Your task to perform on an android device: turn on priority inbox in the gmail app Image 0: 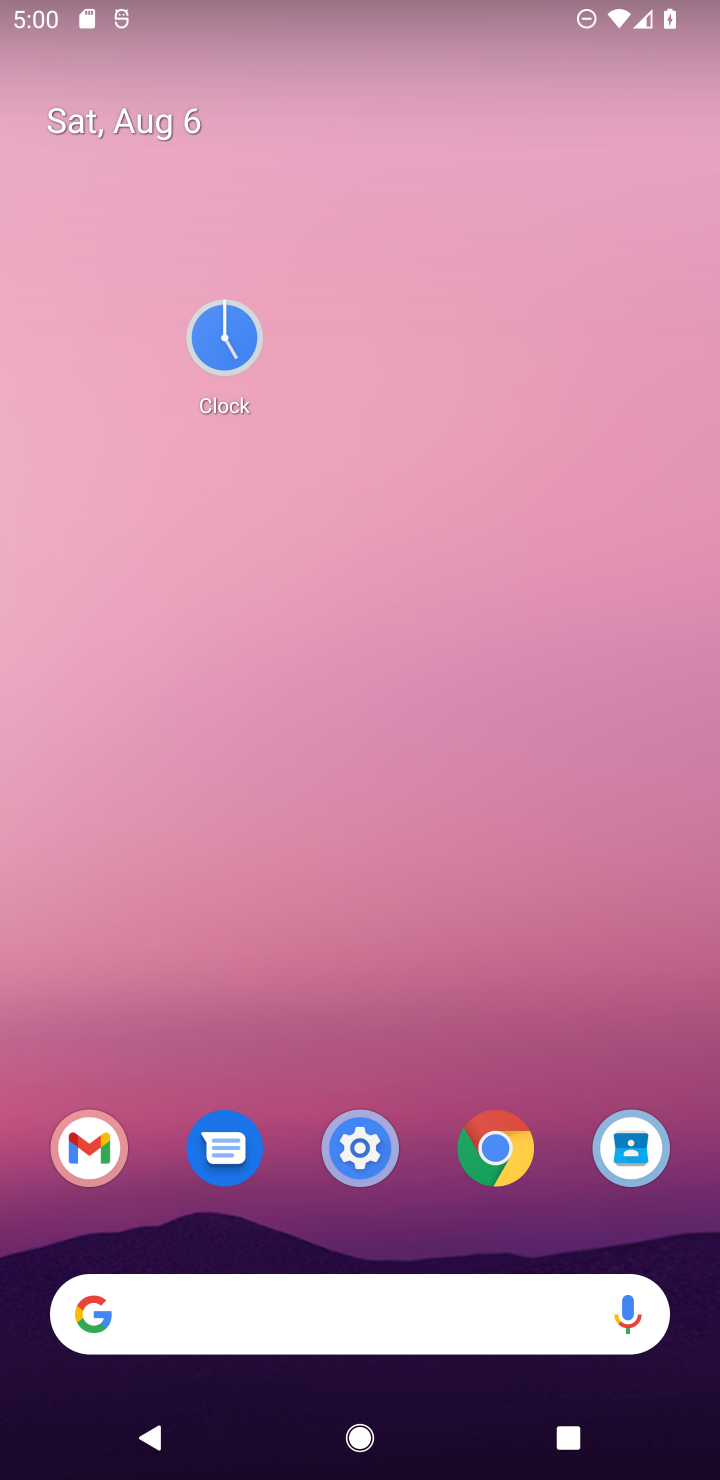
Step 0: drag from (390, 1215) to (621, 143)
Your task to perform on an android device: turn on priority inbox in the gmail app Image 1: 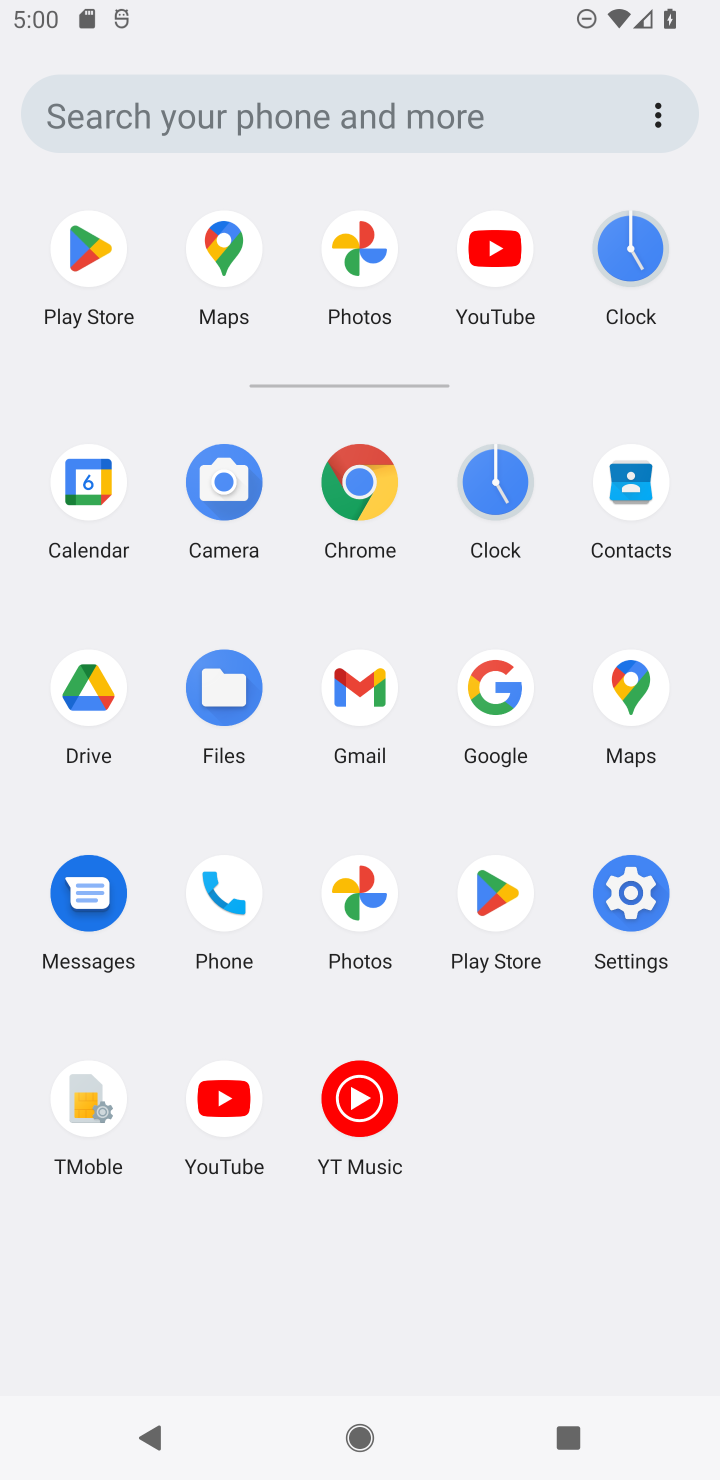
Step 1: click (346, 682)
Your task to perform on an android device: turn on priority inbox in the gmail app Image 2: 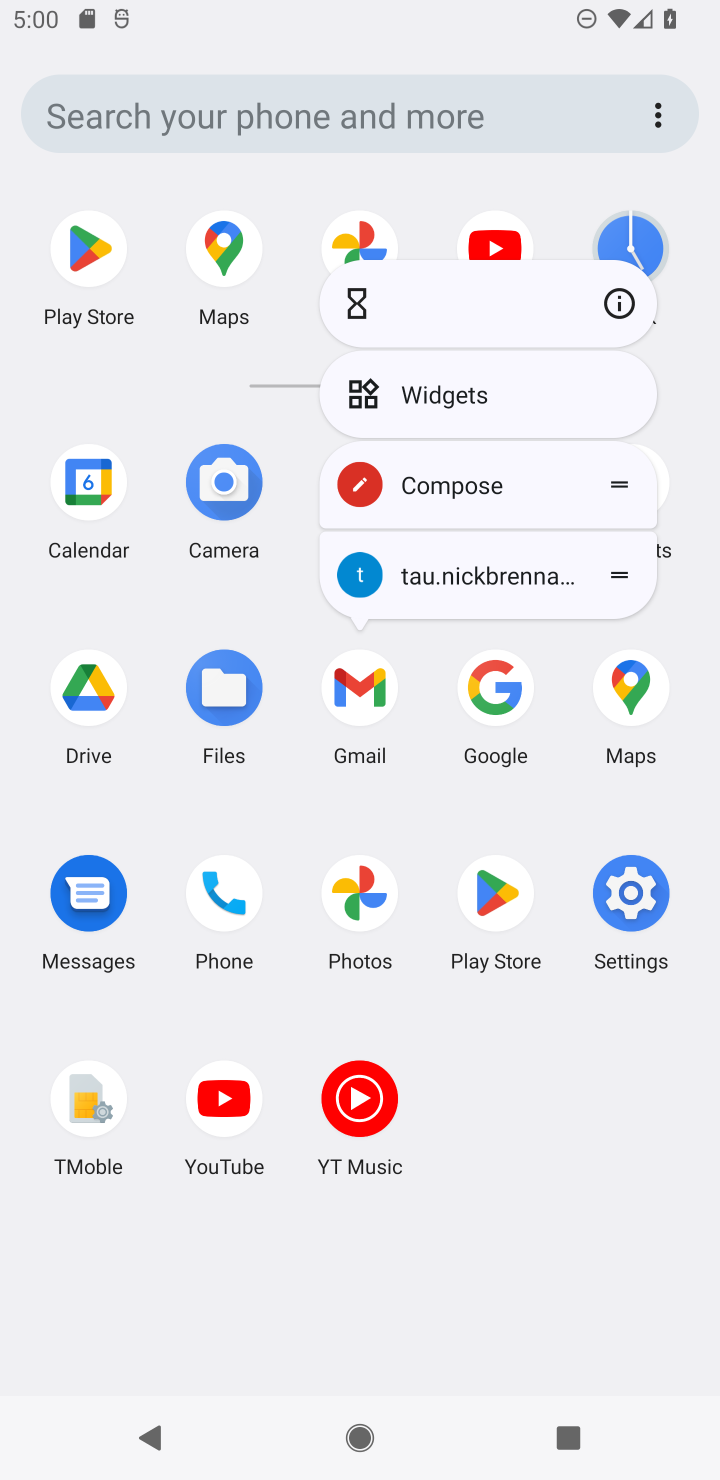
Step 2: click (624, 291)
Your task to perform on an android device: turn on priority inbox in the gmail app Image 3: 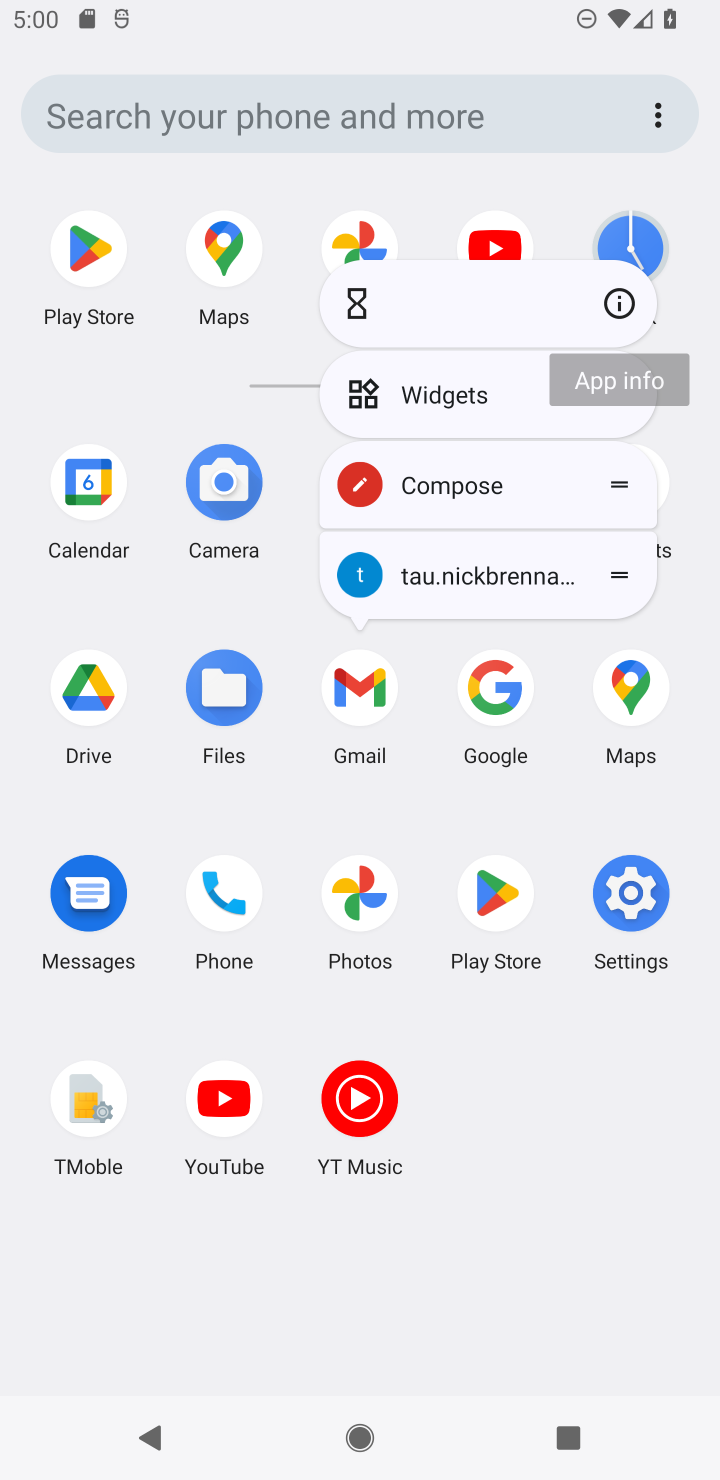
Step 3: click (611, 289)
Your task to perform on an android device: turn on priority inbox in the gmail app Image 4: 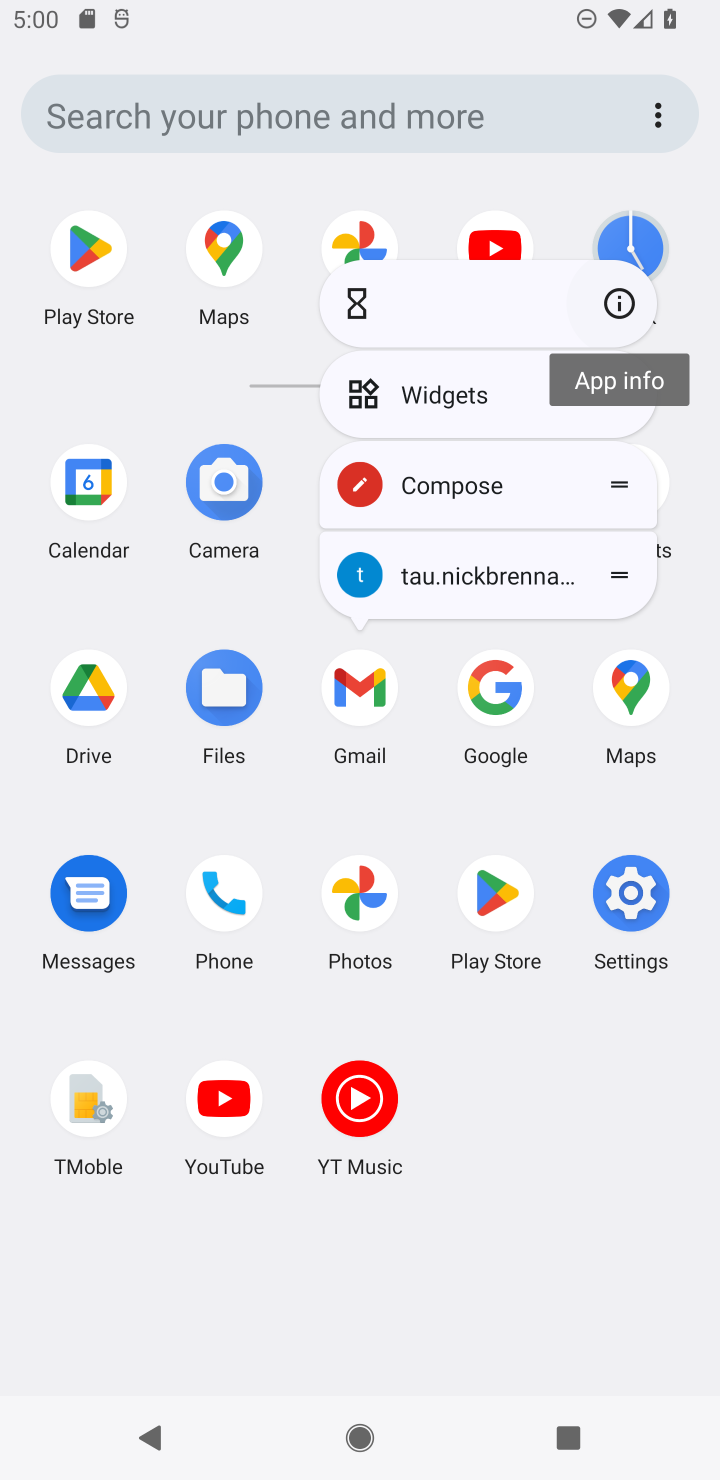
Step 4: click (611, 289)
Your task to perform on an android device: turn on priority inbox in the gmail app Image 5: 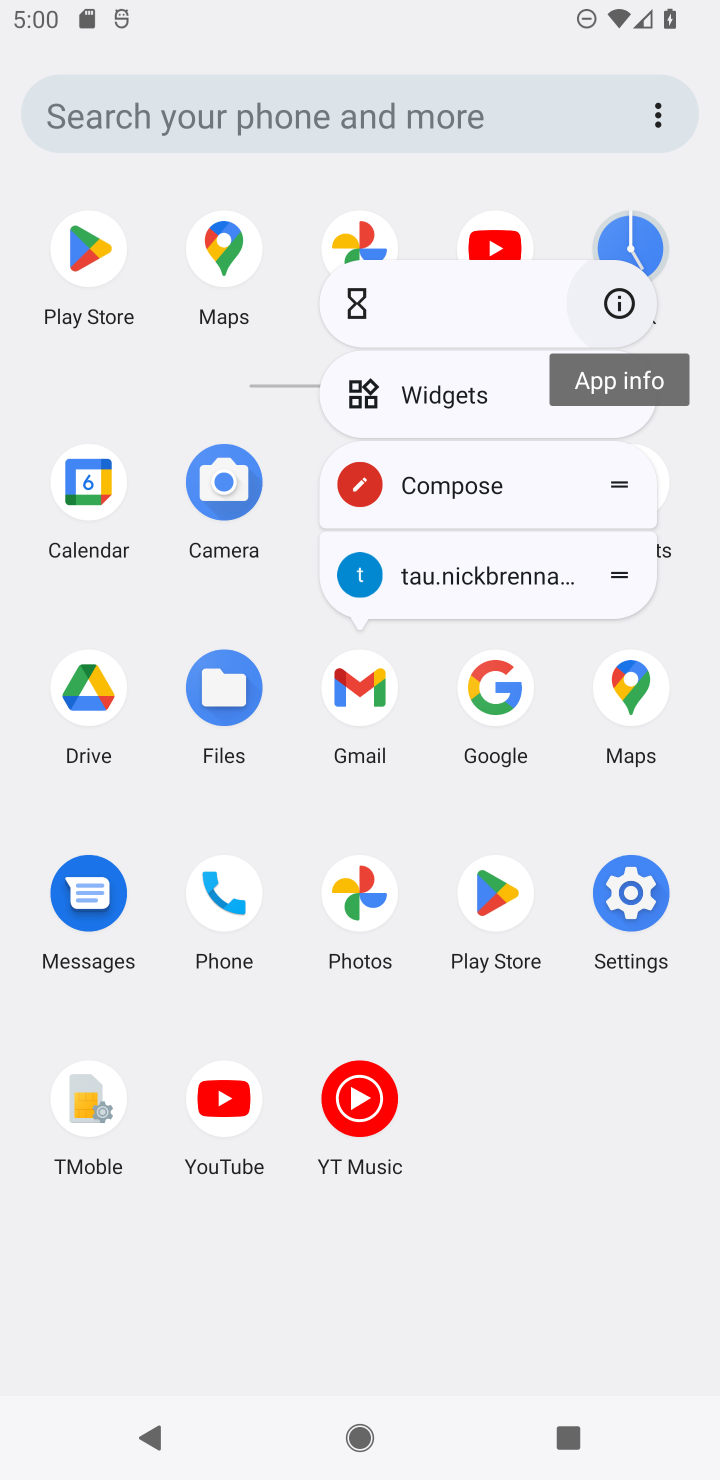
Step 5: click (611, 295)
Your task to perform on an android device: turn on priority inbox in the gmail app Image 6: 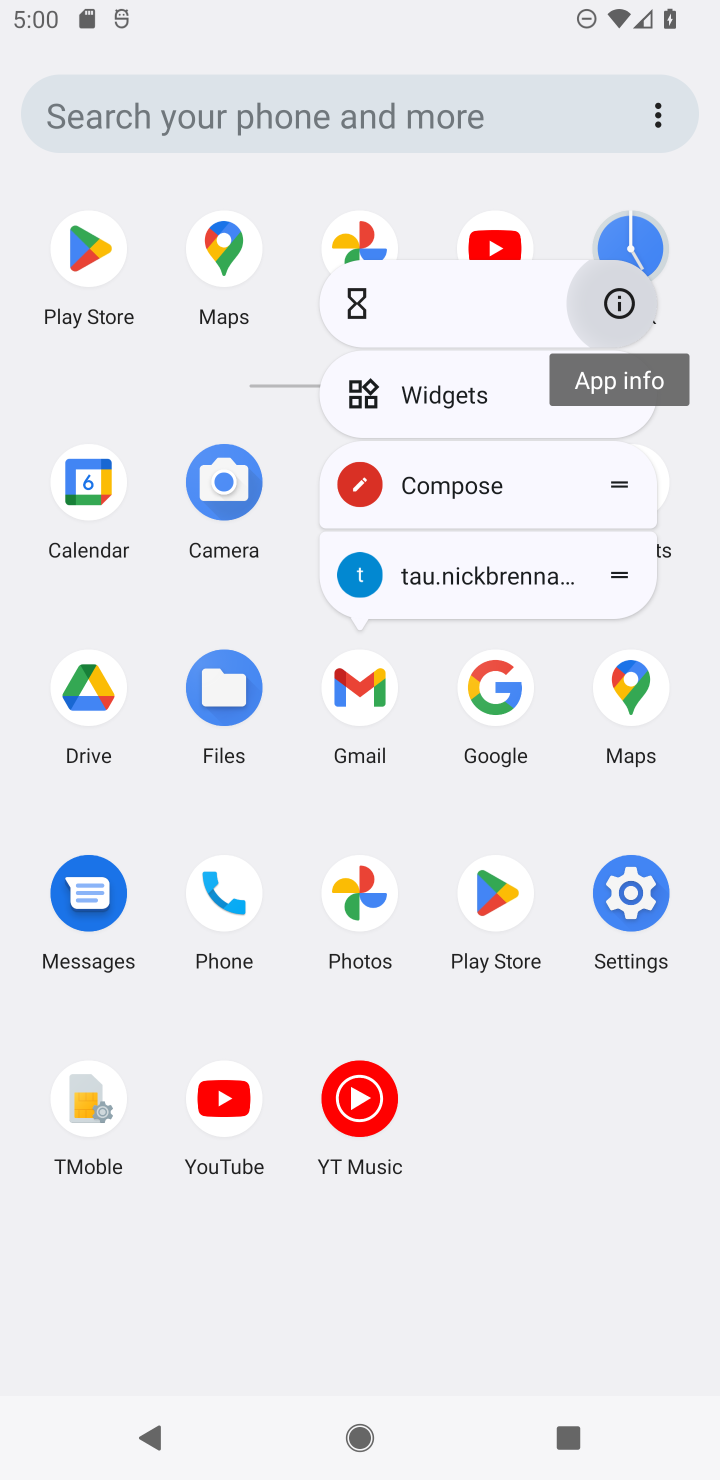
Step 6: click (371, 672)
Your task to perform on an android device: turn on priority inbox in the gmail app Image 7: 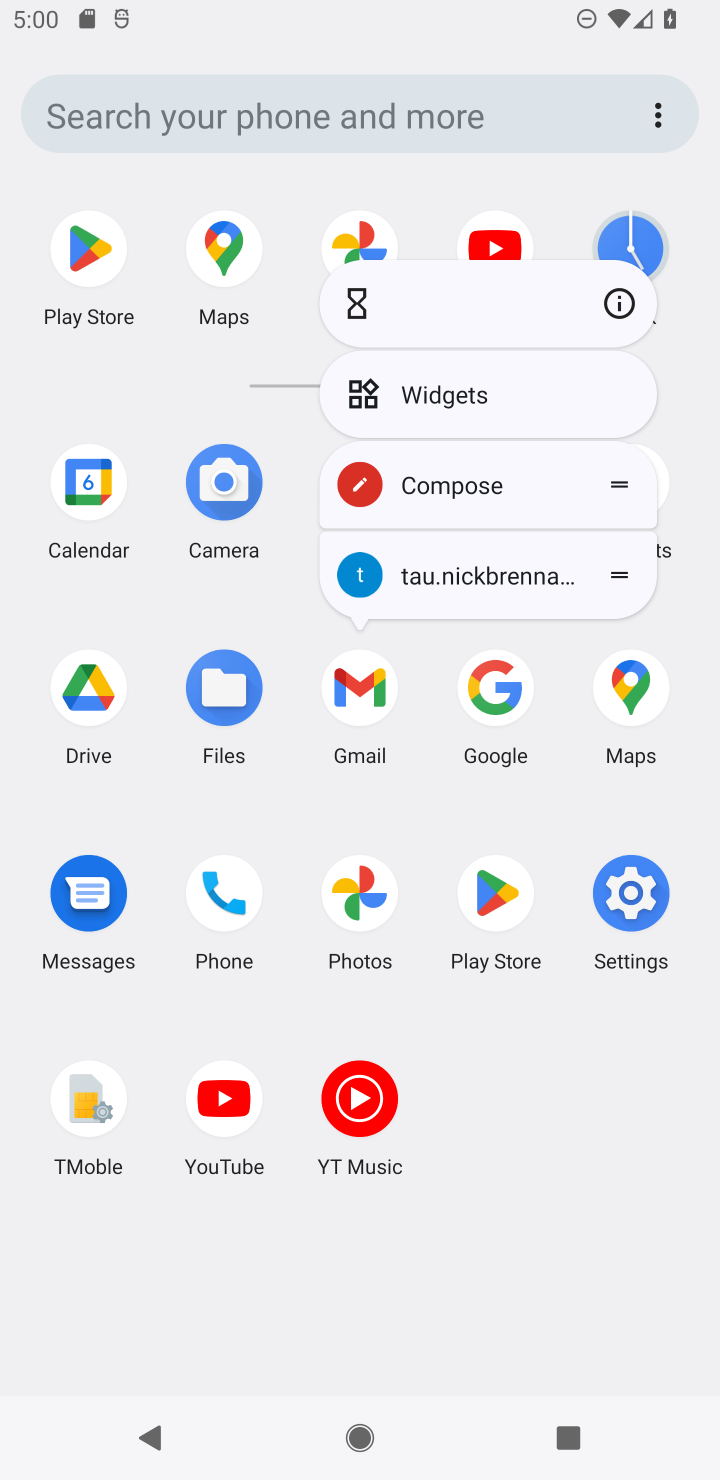
Step 7: click (350, 664)
Your task to perform on an android device: turn on priority inbox in the gmail app Image 8: 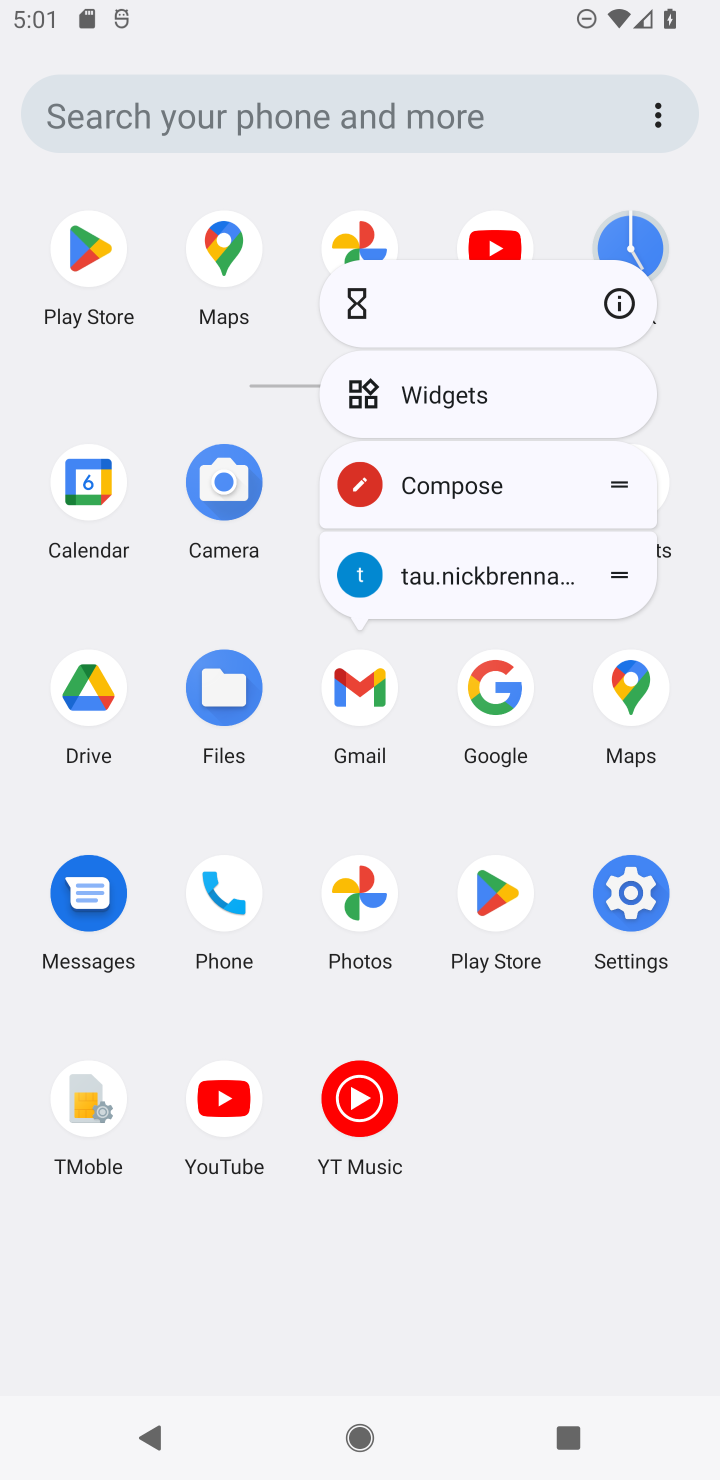
Step 8: click (350, 664)
Your task to perform on an android device: turn on priority inbox in the gmail app Image 9: 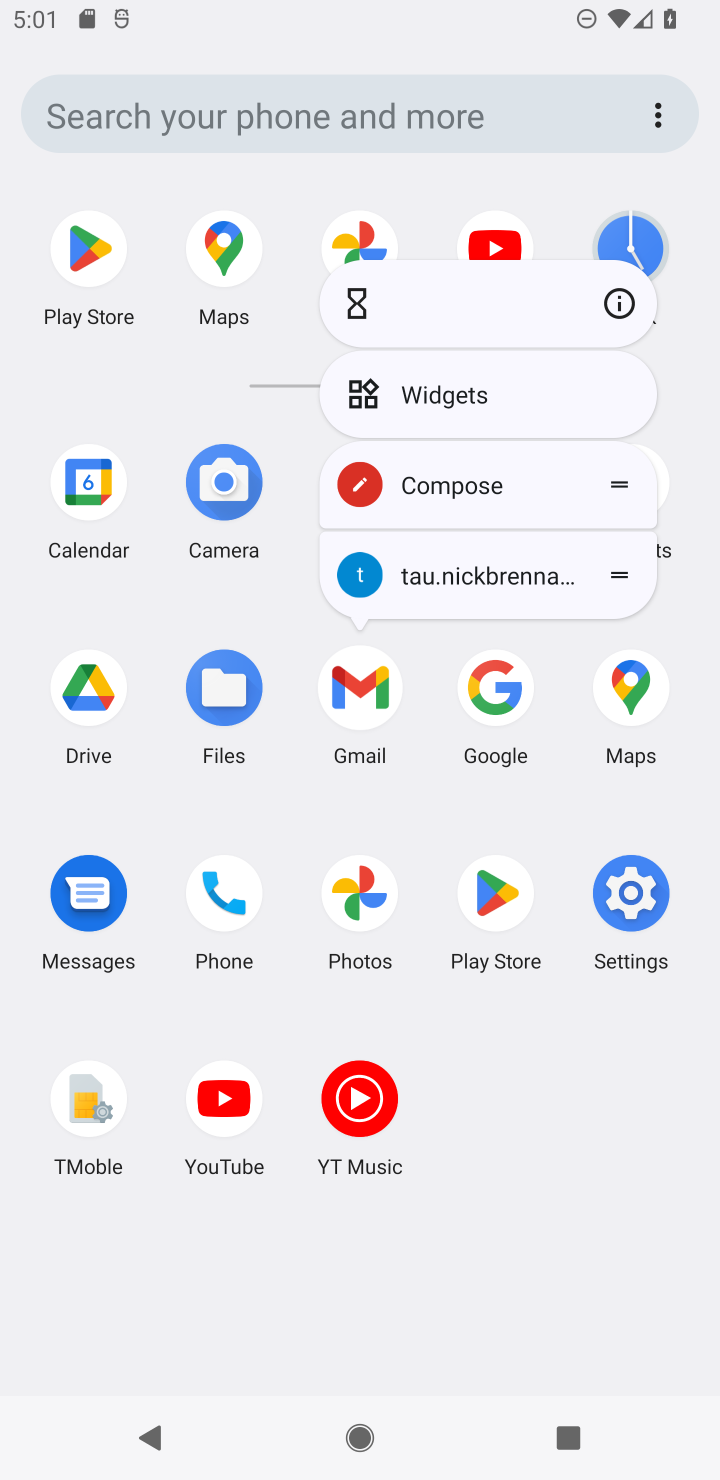
Step 9: click (348, 664)
Your task to perform on an android device: turn on priority inbox in the gmail app Image 10: 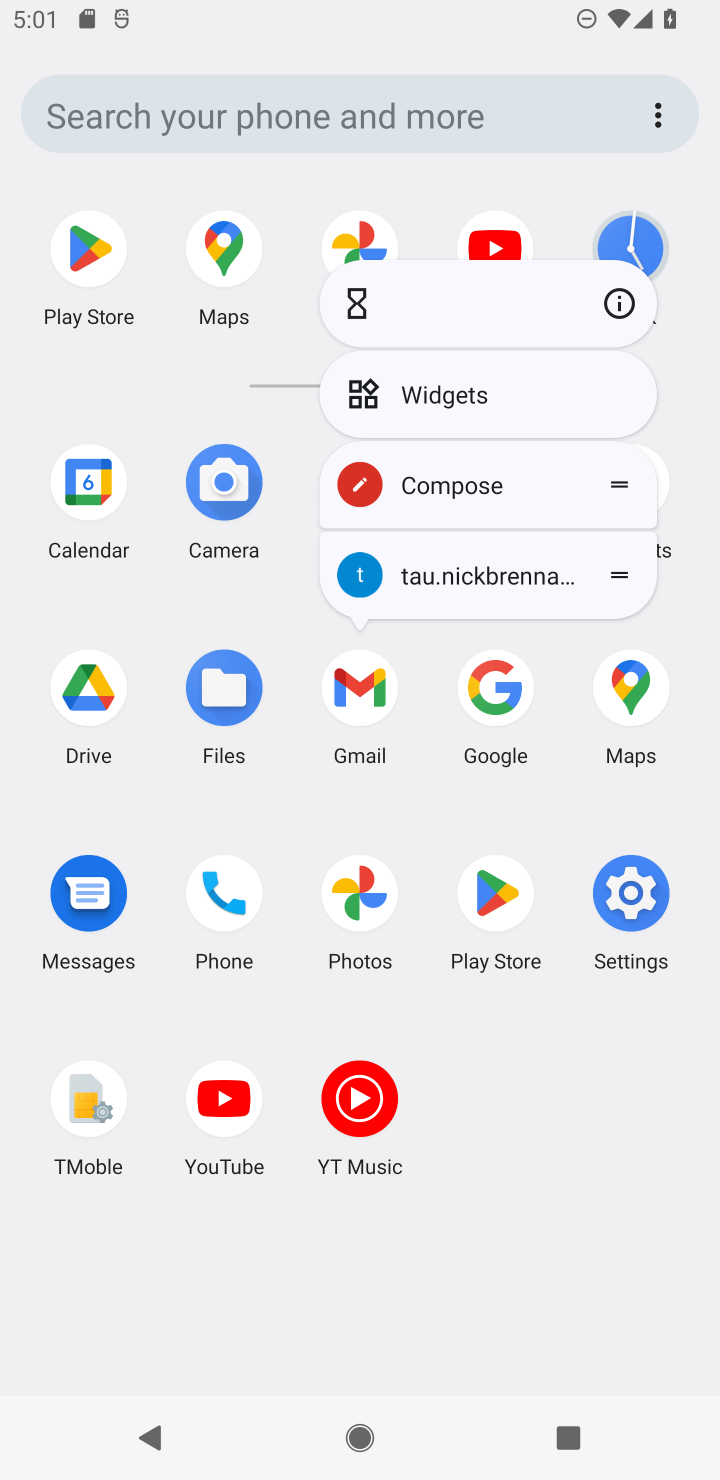
Step 10: click (614, 283)
Your task to perform on an android device: turn on priority inbox in the gmail app Image 11: 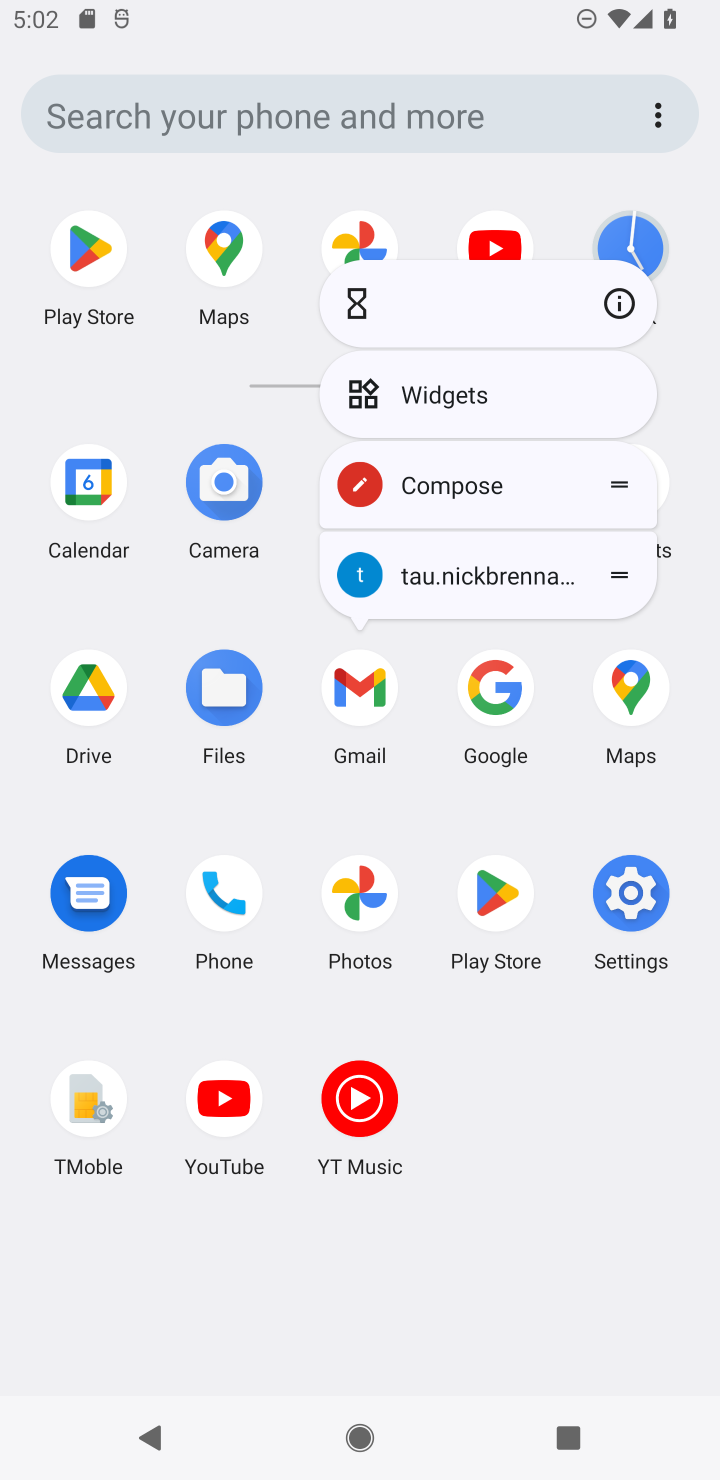
Step 11: click (360, 659)
Your task to perform on an android device: turn on priority inbox in the gmail app Image 12: 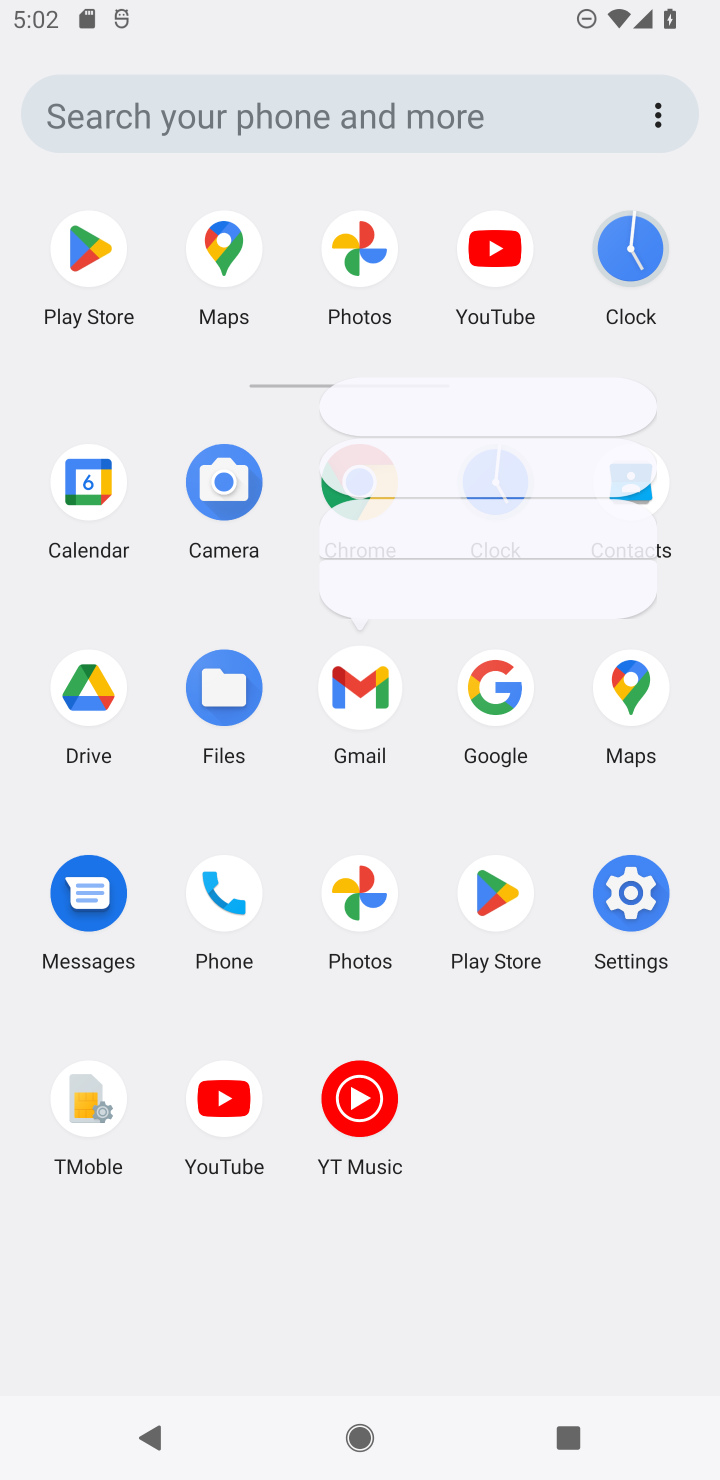
Step 12: click (360, 659)
Your task to perform on an android device: turn on priority inbox in the gmail app Image 13: 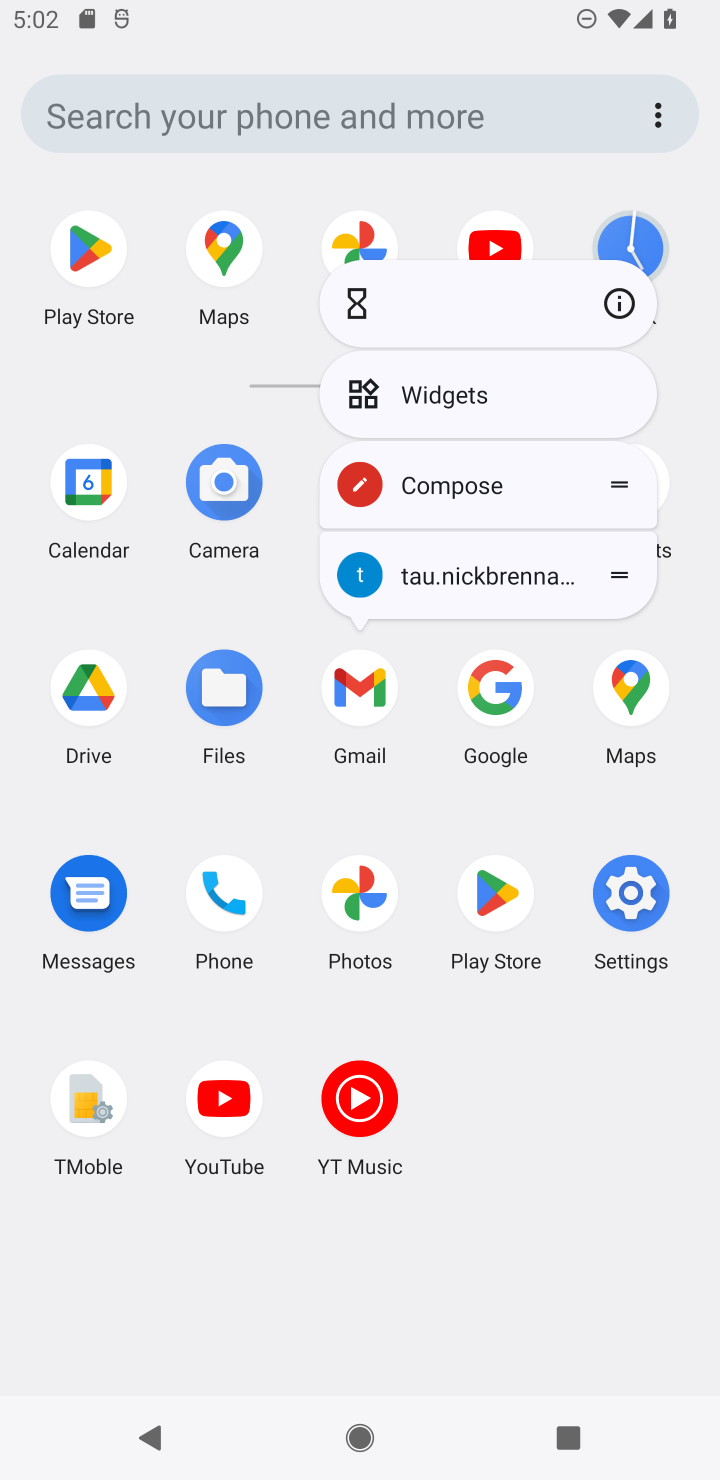
Step 13: click (366, 657)
Your task to perform on an android device: turn on priority inbox in the gmail app Image 14: 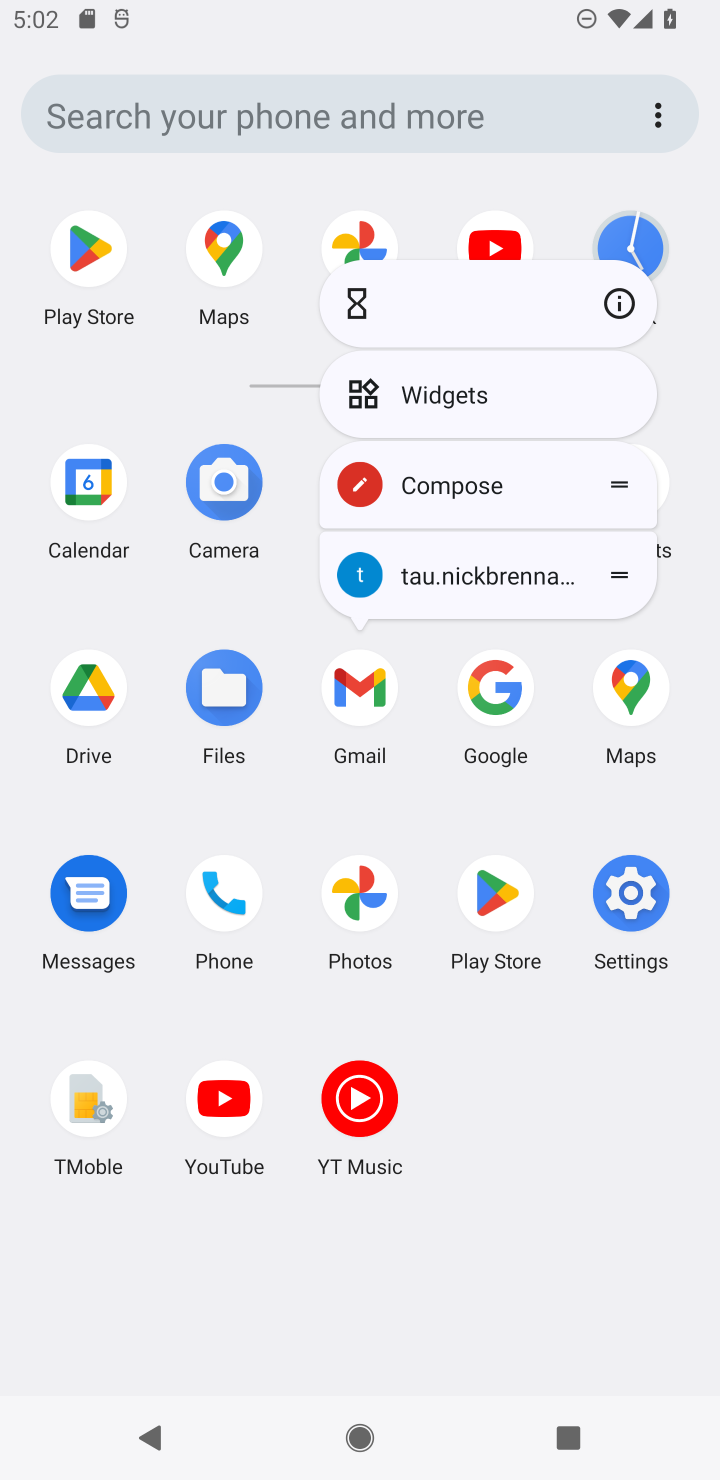
Step 14: click (351, 666)
Your task to perform on an android device: turn on priority inbox in the gmail app Image 15: 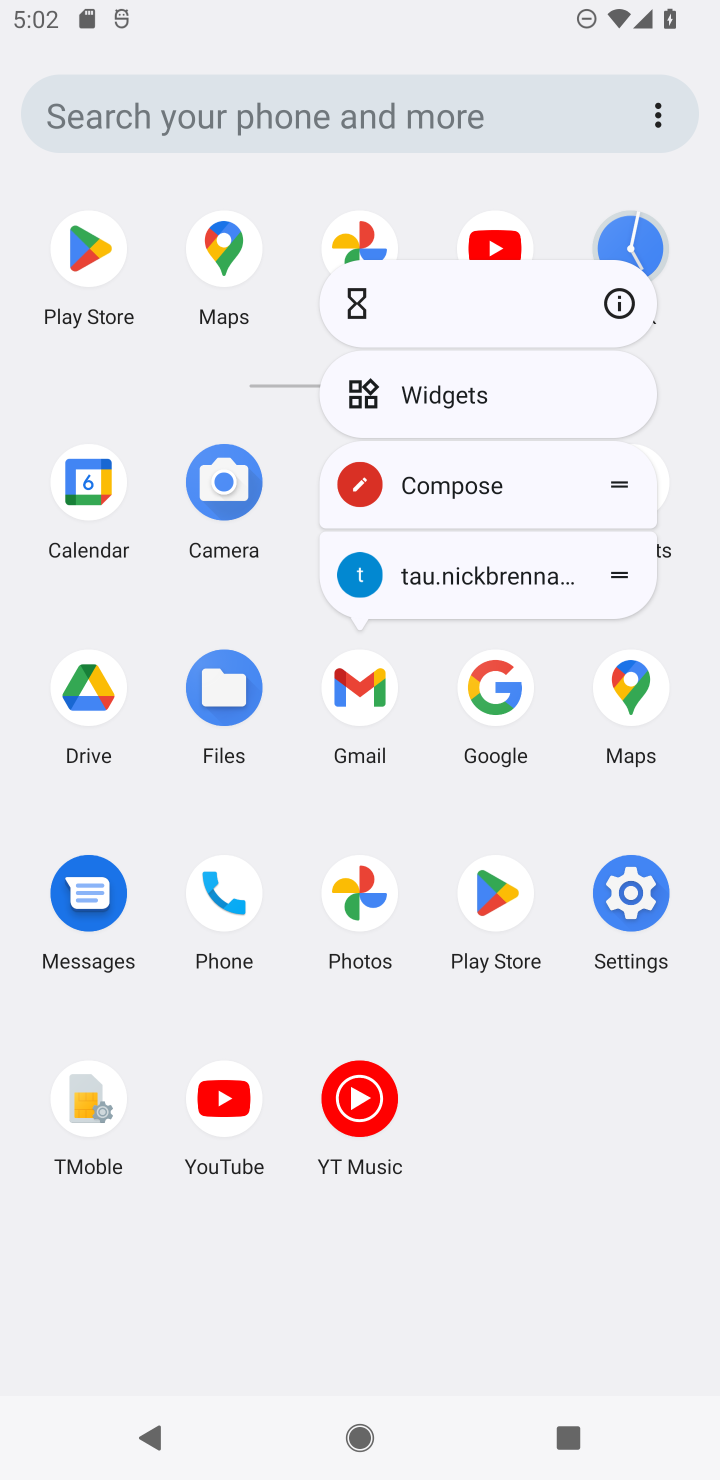
Step 15: click (615, 289)
Your task to perform on an android device: turn on priority inbox in the gmail app Image 16: 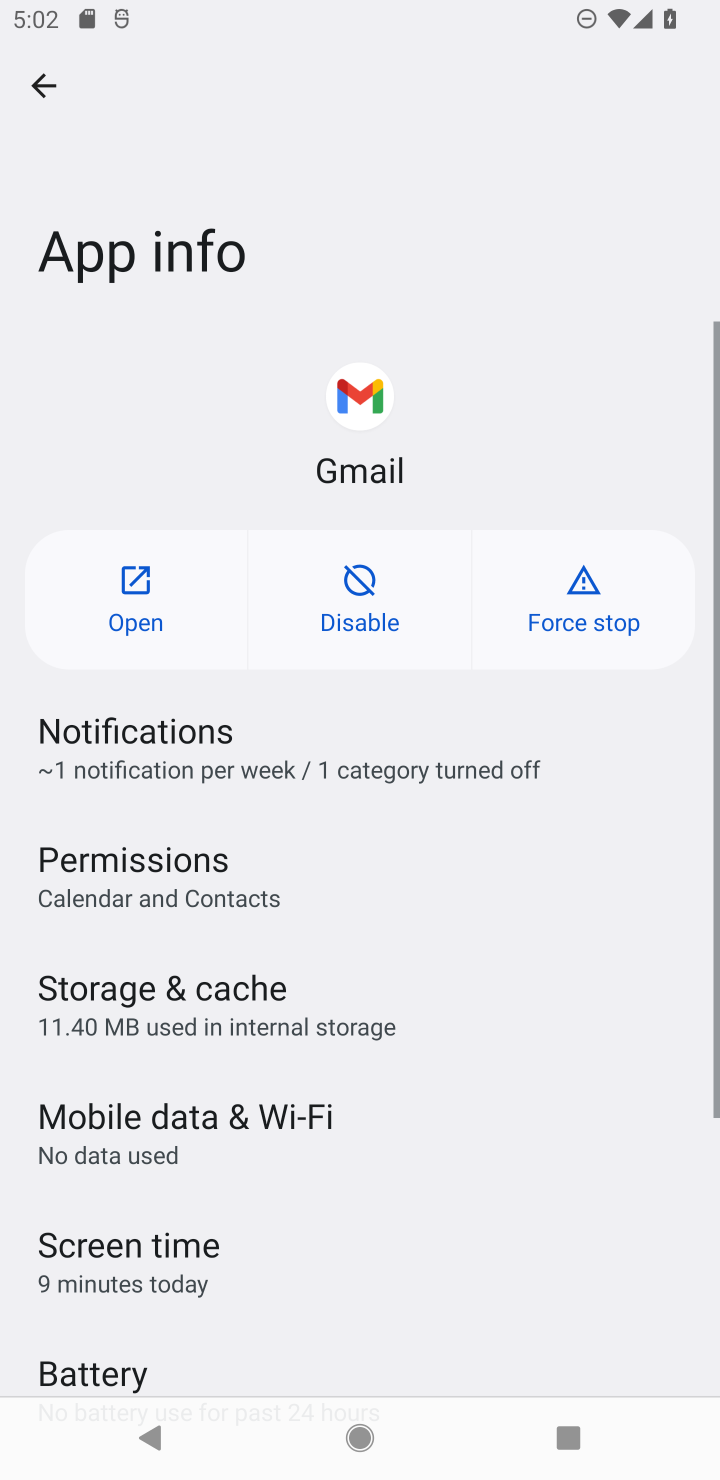
Step 16: click (99, 586)
Your task to perform on an android device: turn on priority inbox in the gmail app Image 17: 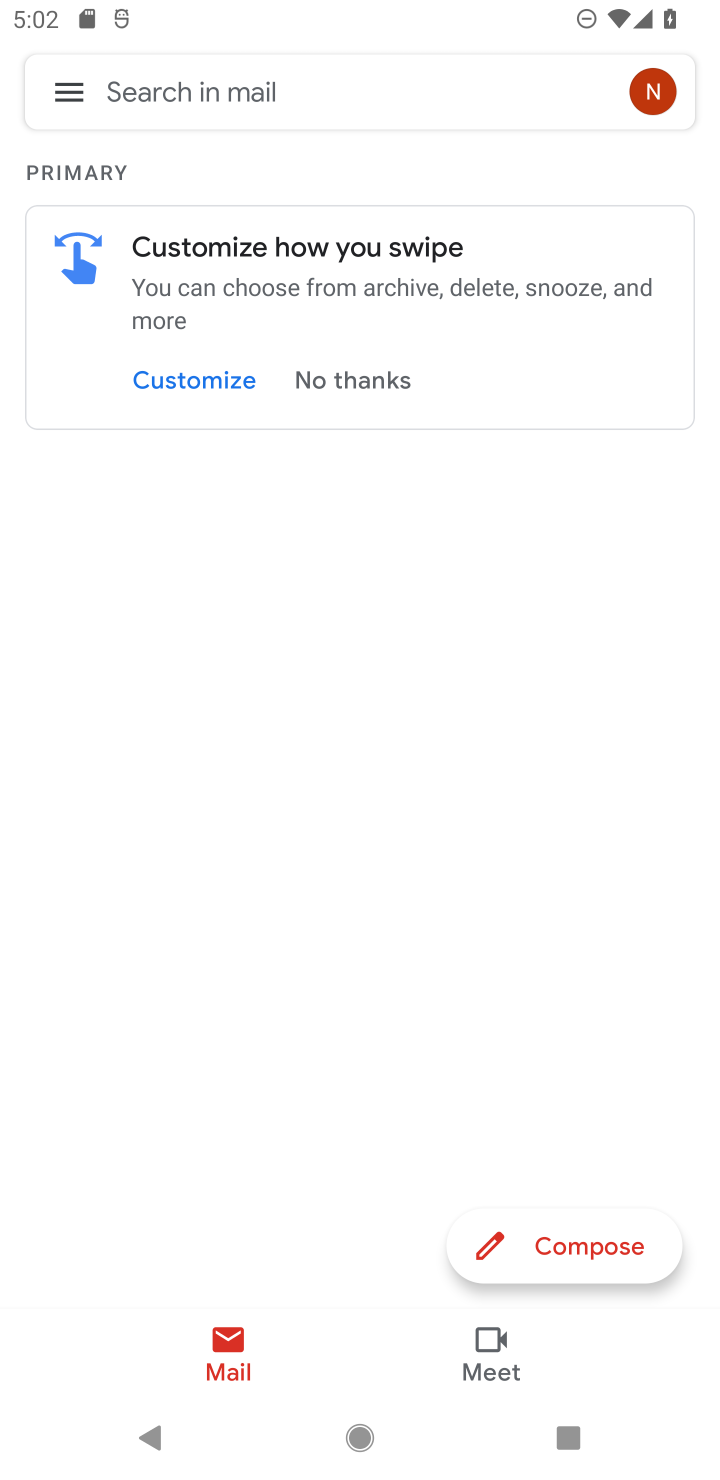
Step 17: click (51, 93)
Your task to perform on an android device: turn on priority inbox in the gmail app Image 18: 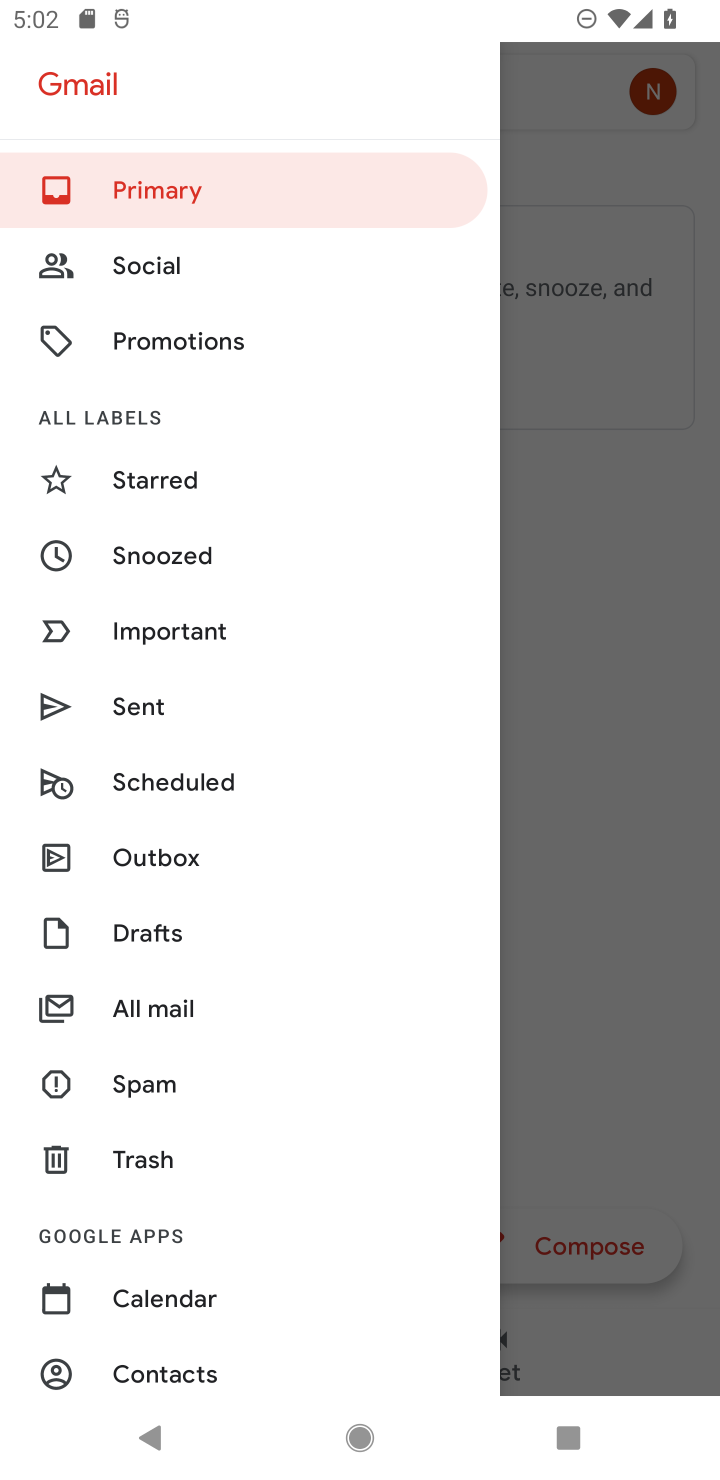
Step 18: drag from (179, 1153) to (279, 275)
Your task to perform on an android device: turn on priority inbox in the gmail app Image 19: 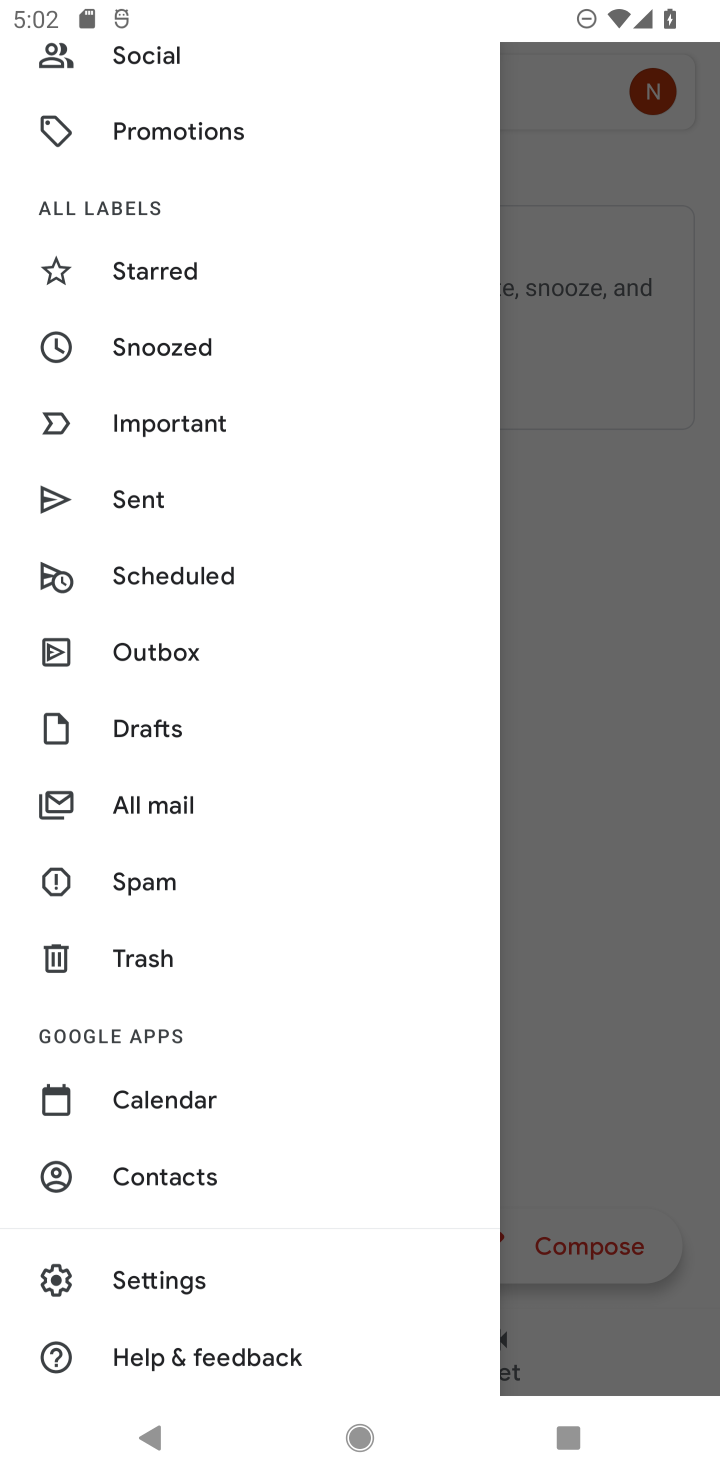
Step 19: drag from (259, 1092) to (332, 393)
Your task to perform on an android device: turn on priority inbox in the gmail app Image 20: 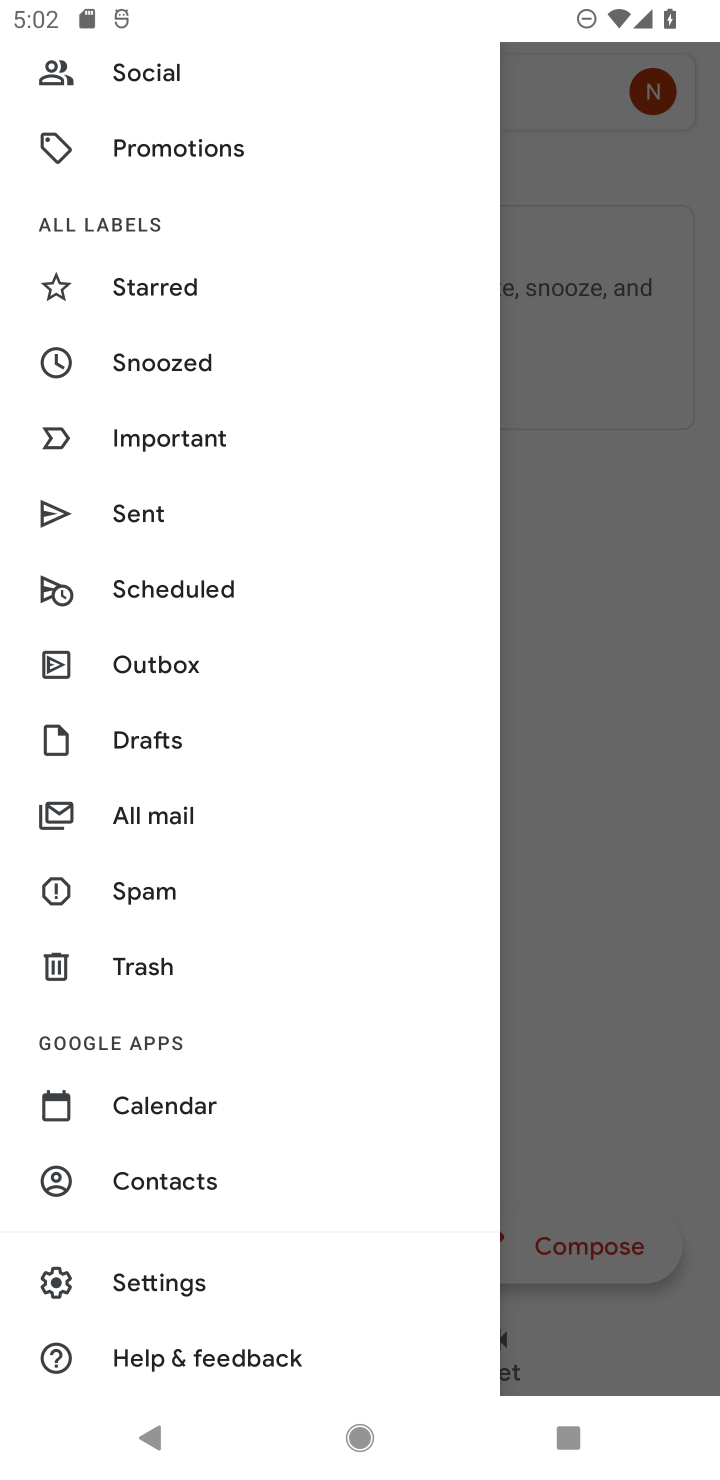
Step 20: click (176, 1289)
Your task to perform on an android device: turn on priority inbox in the gmail app Image 21: 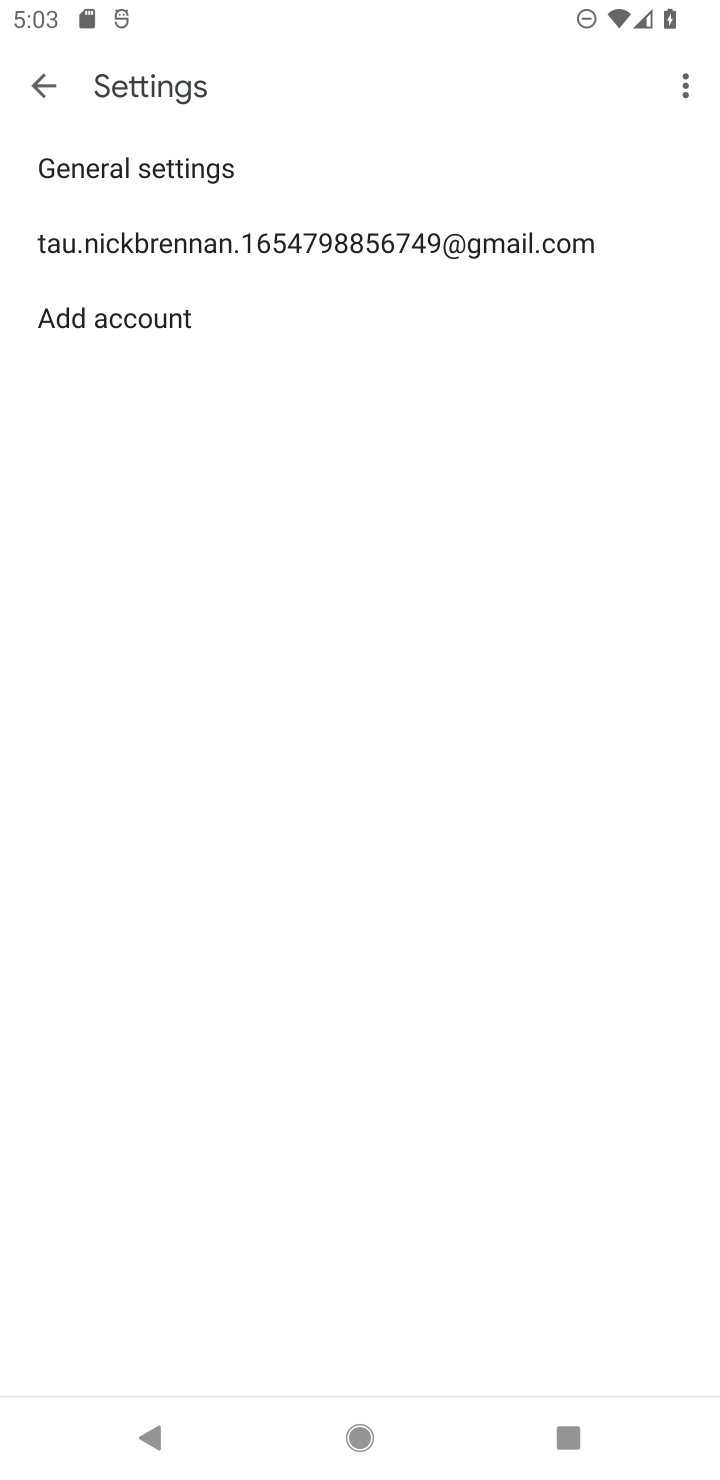
Step 21: click (276, 234)
Your task to perform on an android device: turn on priority inbox in the gmail app Image 22: 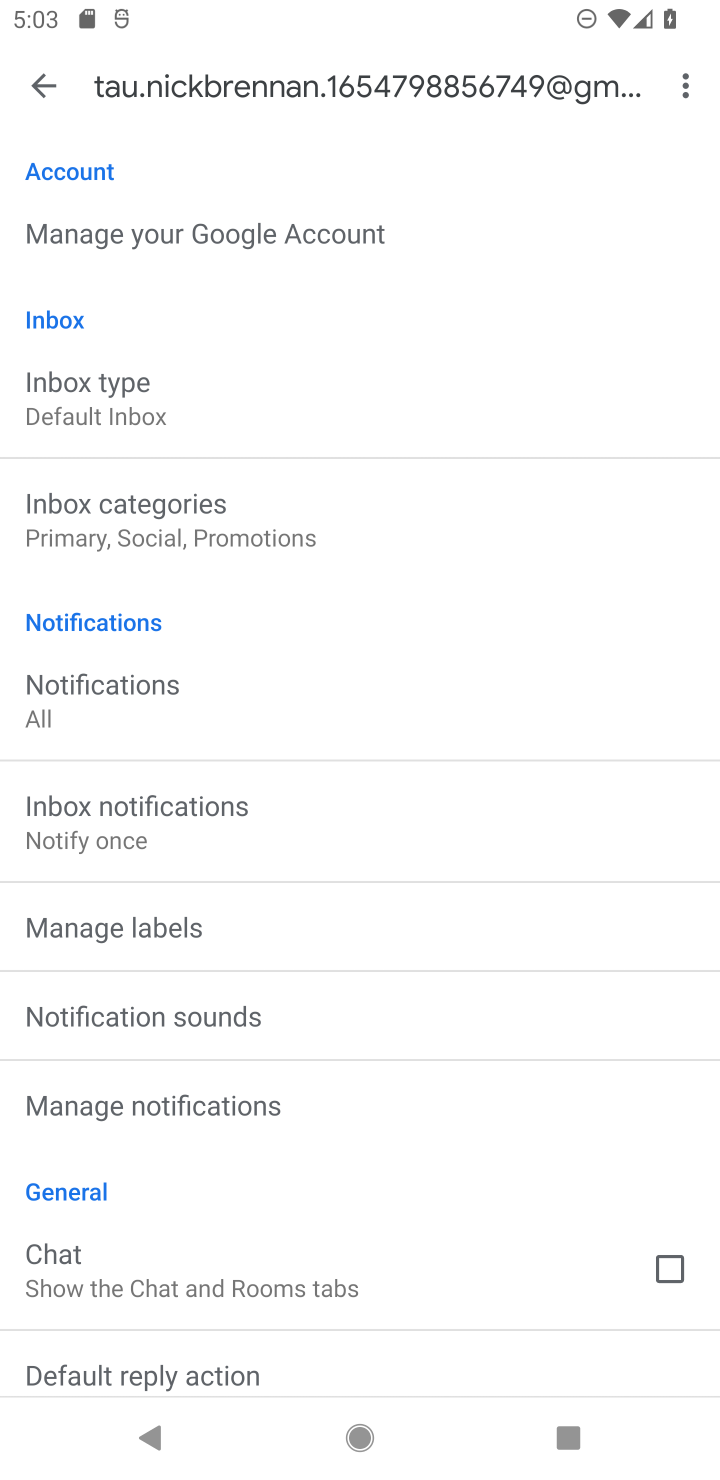
Step 22: click (133, 402)
Your task to perform on an android device: turn on priority inbox in the gmail app Image 23: 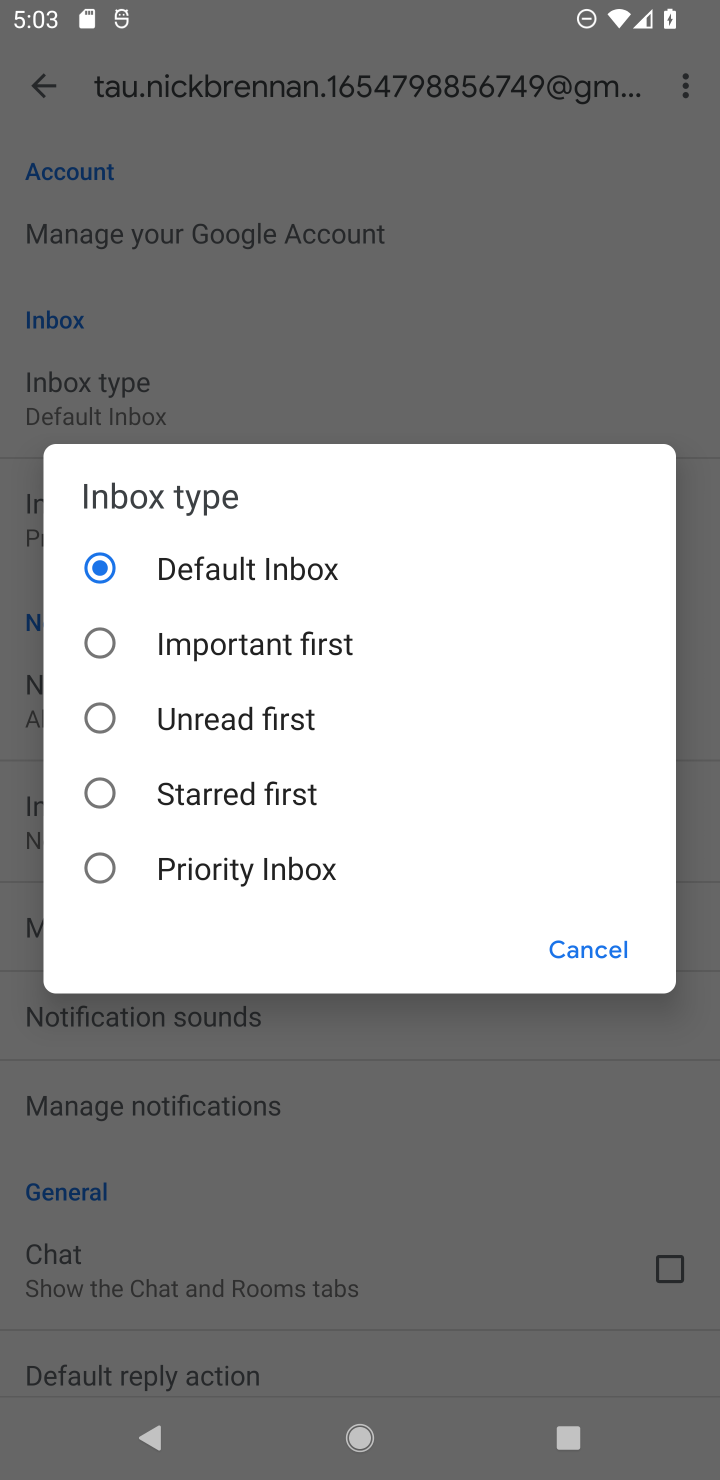
Step 23: click (176, 865)
Your task to perform on an android device: turn on priority inbox in the gmail app Image 24: 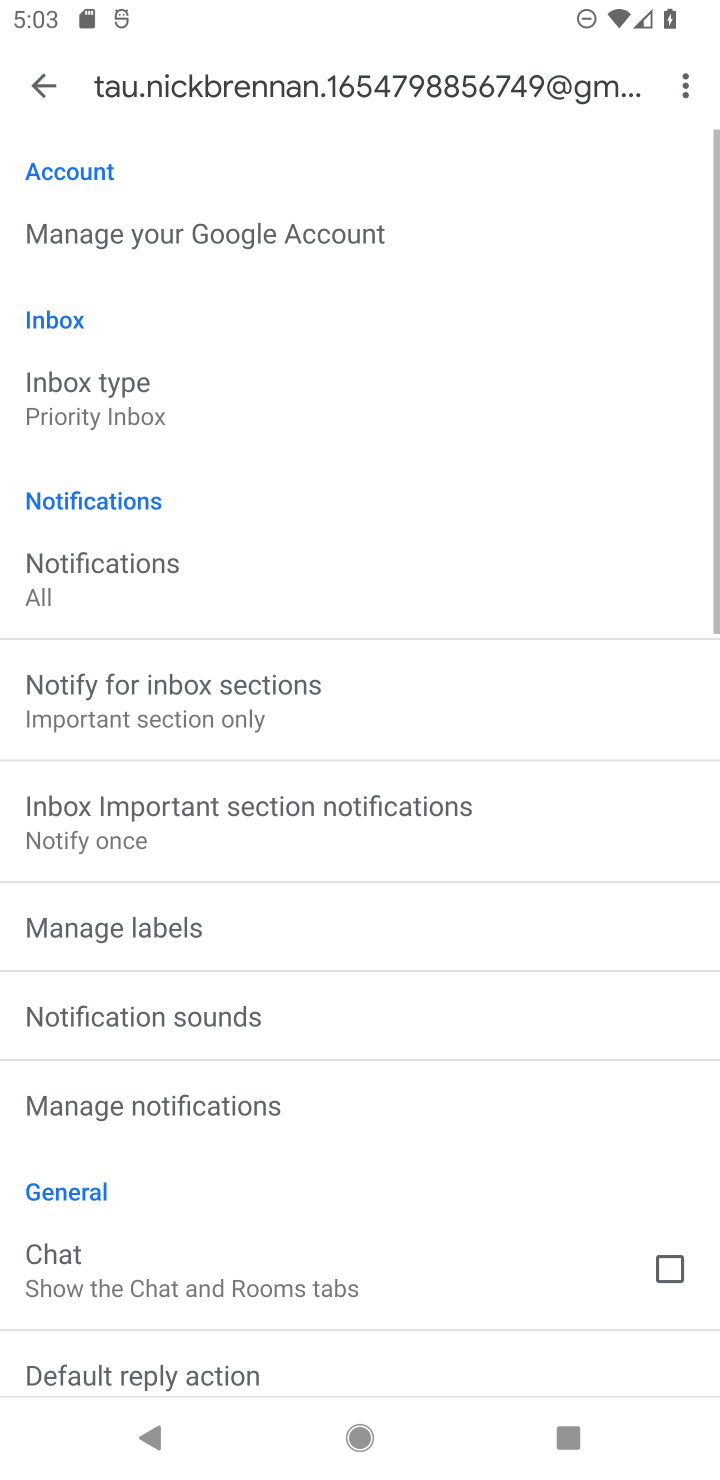
Step 24: task complete